Your task to perform on an android device: turn on bluetooth scan Image 0: 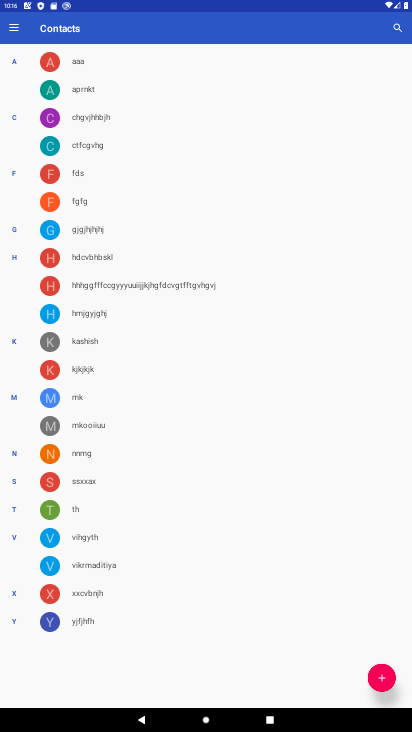
Step 0: press home button
Your task to perform on an android device: turn on bluetooth scan Image 1: 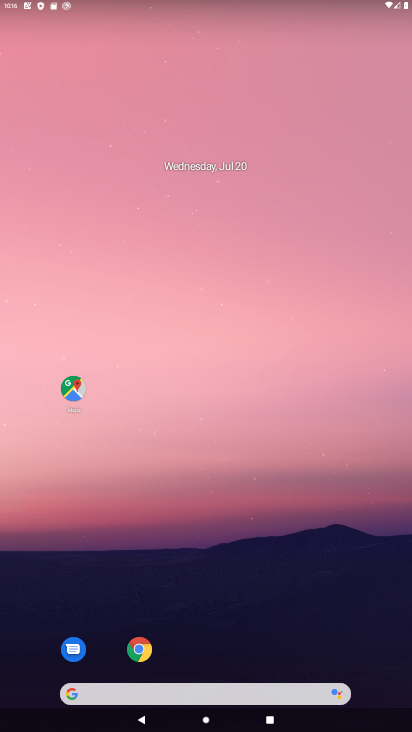
Step 1: drag from (275, 629) to (293, 59)
Your task to perform on an android device: turn on bluetooth scan Image 2: 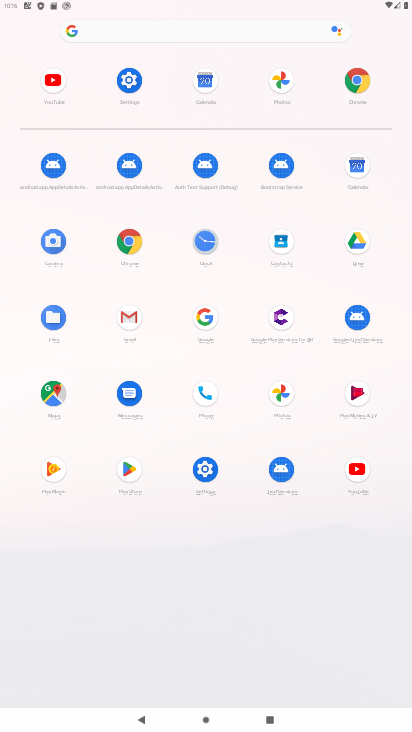
Step 2: click (129, 87)
Your task to perform on an android device: turn on bluetooth scan Image 3: 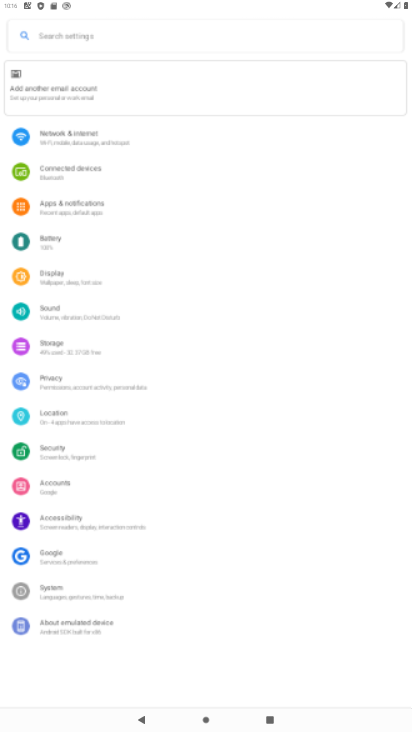
Step 3: click (129, 87)
Your task to perform on an android device: turn on bluetooth scan Image 4: 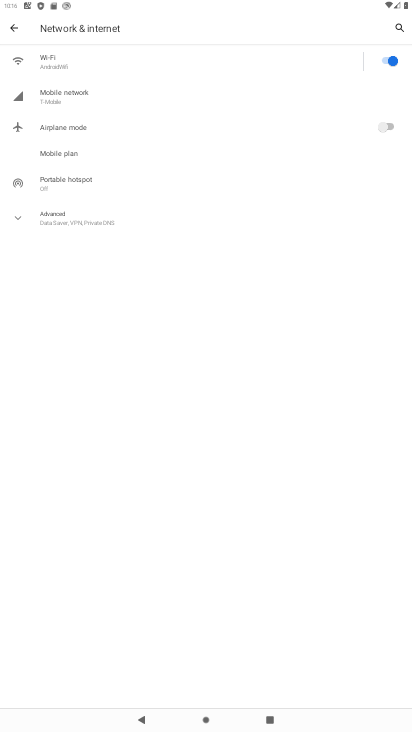
Step 4: click (0, 22)
Your task to perform on an android device: turn on bluetooth scan Image 5: 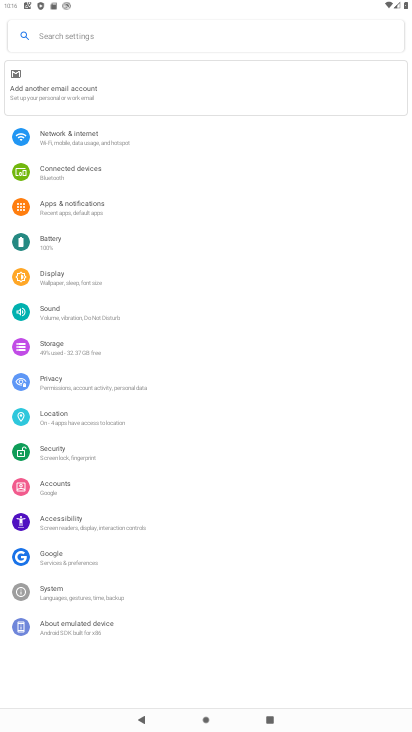
Step 5: click (98, 415)
Your task to perform on an android device: turn on bluetooth scan Image 6: 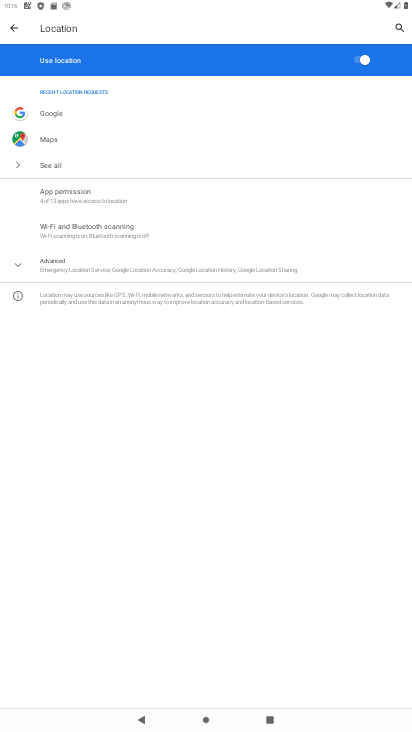
Step 6: click (159, 231)
Your task to perform on an android device: turn on bluetooth scan Image 7: 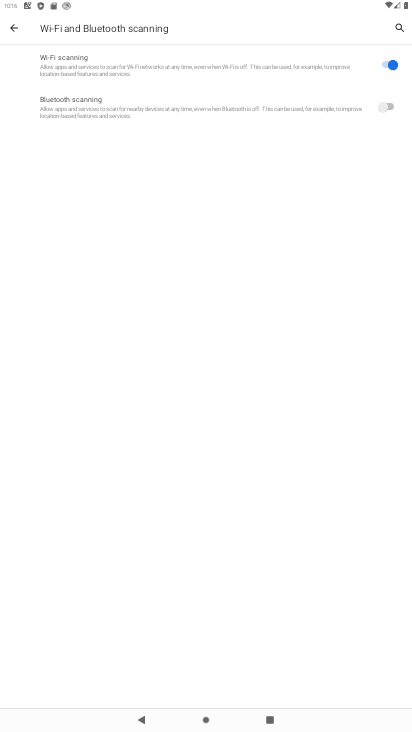
Step 7: click (389, 97)
Your task to perform on an android device: turn on bluetooth scan Image 8: 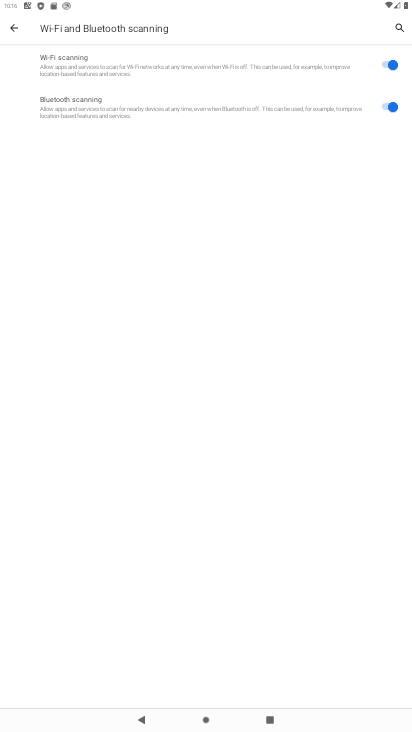
Step 8: task complete